Your task to perform on an android device: Open wifi settings Image 0: 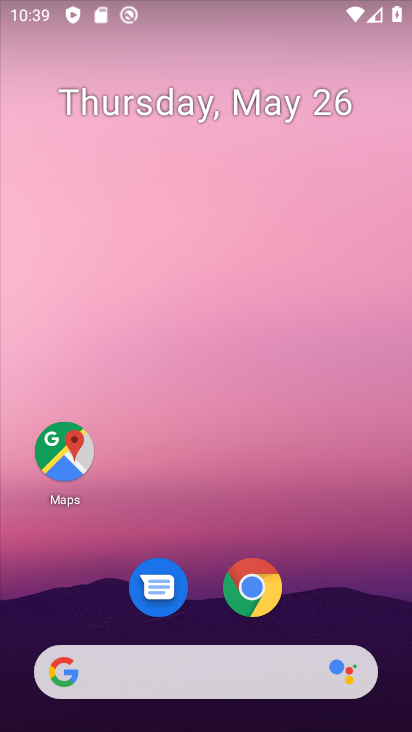
Step 0: drag from (233, 714) to (256, 69)
Your task to perform on an android device: Open wifi settings Image 1: 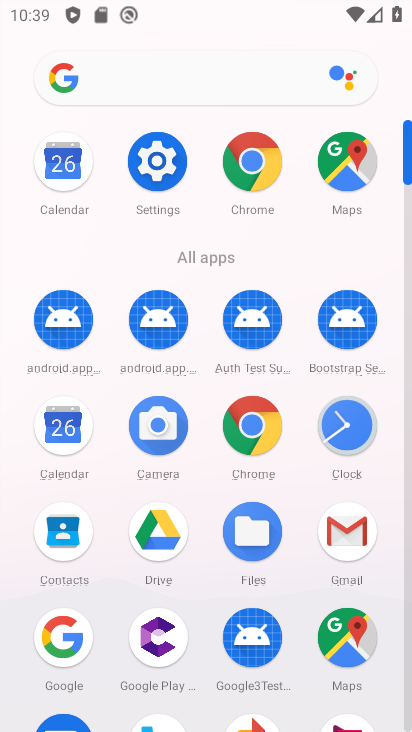
Step 1: click (140, 143)
Your task to perform on an android device: Open wifi settings Image 2: 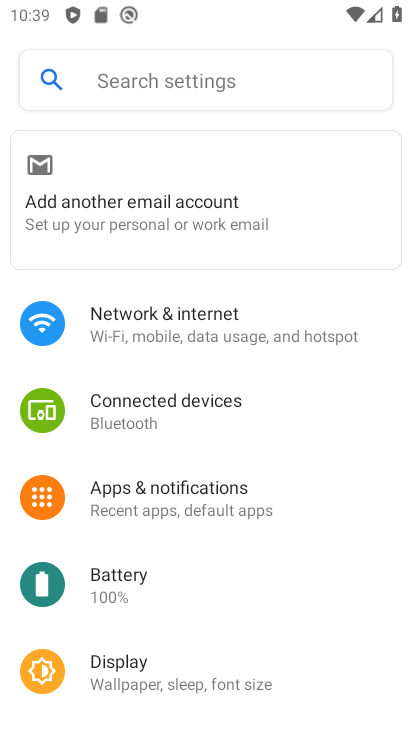
Step 2: click (251, 340)
Your task to perform on an android device: Open wifi settings Image 3: 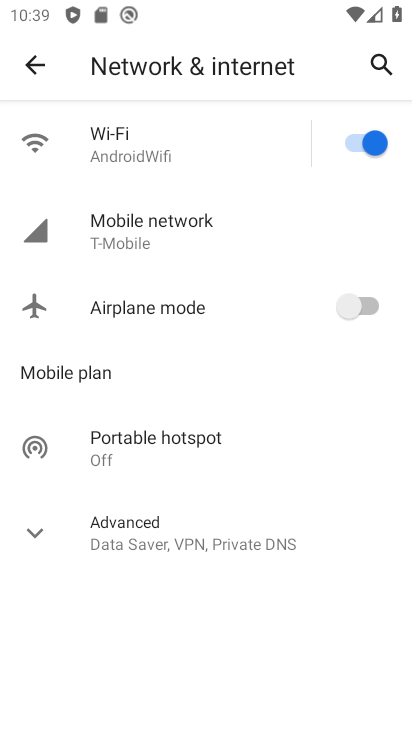
Step 3: click (197, 152)
Your task to perform on an android device: Open wifi settings Image 4: 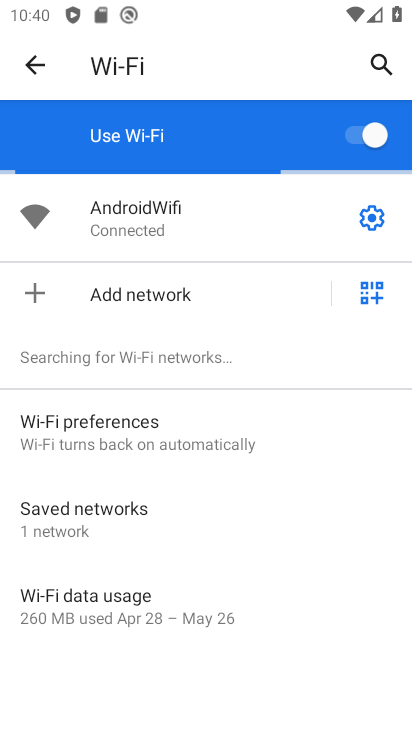
Step 4: task complete